Your task to perform on an android device: Check the weather Image 0: 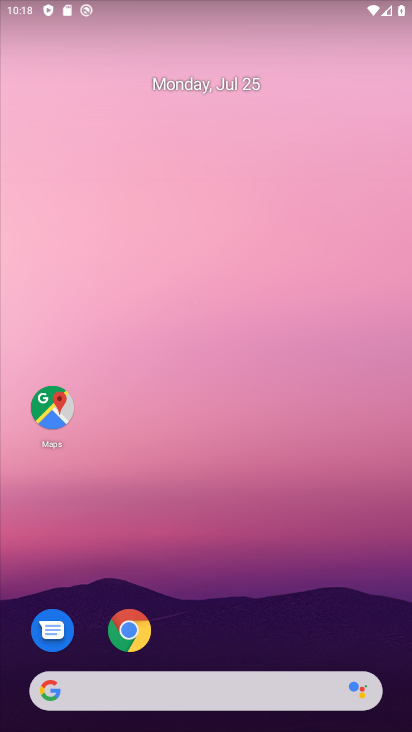
Step 0: click (182, 697)
Your task to perform on an android device: Check the weather Image 1: 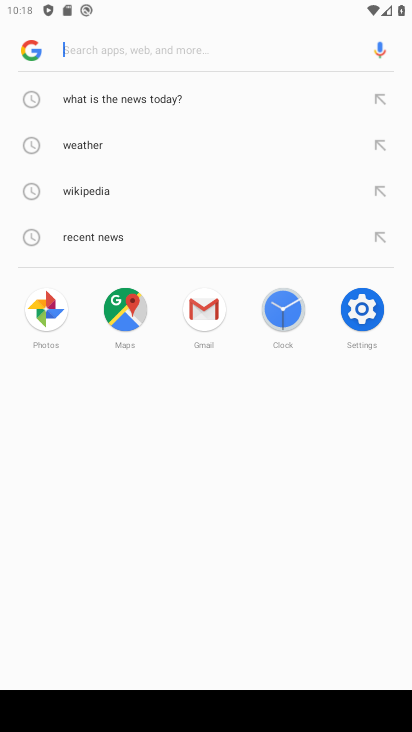
Step 1: type "weather"
Your task to perform on an android device: Check the weather Image 2: 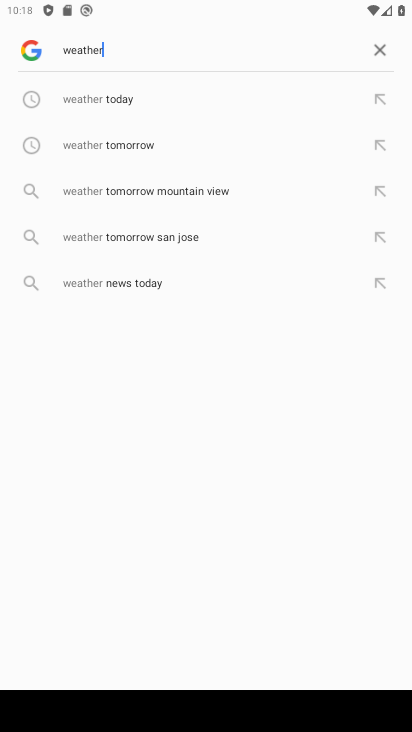
Step 2: click (68, 87)
Your task to perform on an android device: Check the weather Image 3: 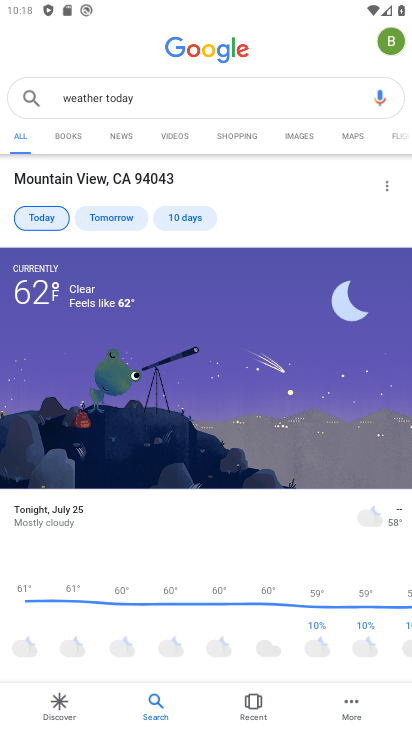
Step 3: task complete